Your task to perform on an android device: find which apps use the phone's location Image 0: 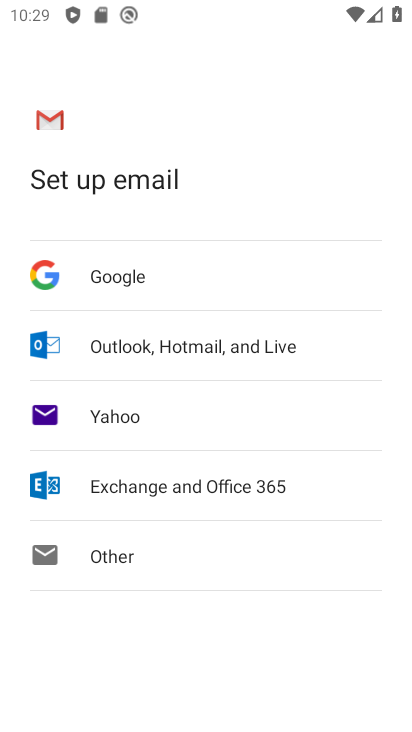
Step 0: press back button
Your task to perform on an android device: find which apps use the phone's location Image 1: 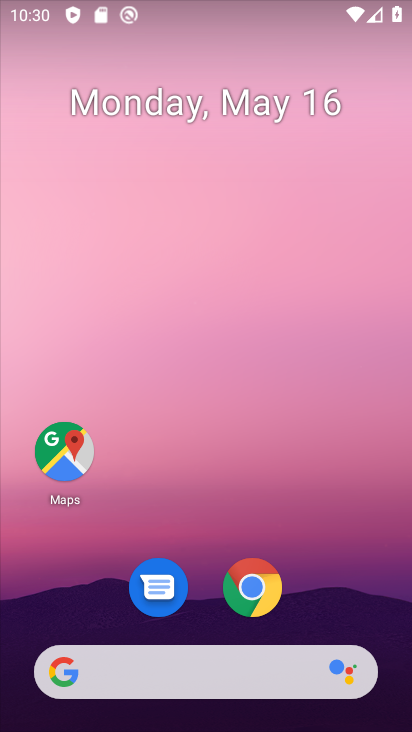
Step 1: drag from (351, 518) to (253, 37)
Your task to perform on an android device: find which apps use the phone's location Image 2: 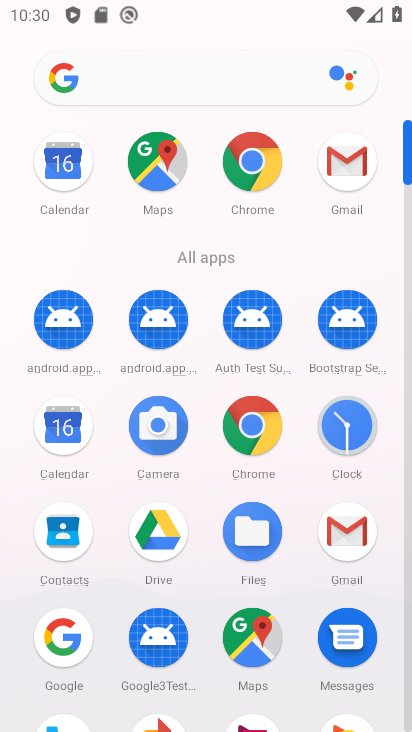
Step 2: drag from (21, 524) to (13, 215)
Your task to perform on an android device: find which apps use the phone's location Image 3: 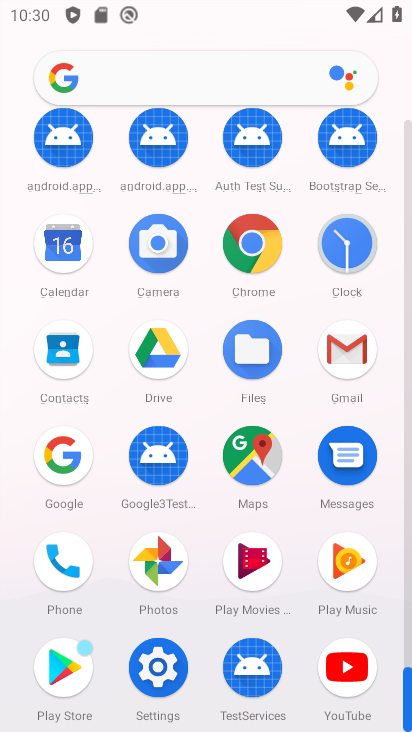
Step 3: click (156, 662)
Your task to perform on an android device: find which apps use the phone's location Image 4: 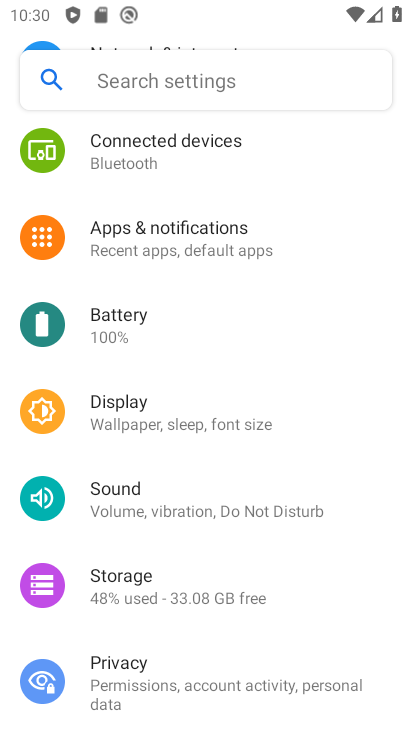
Step 4: drag from (292, 562) to (279, 145)
Your task to perform on an android device: find which apps use the phone's location Image 5: 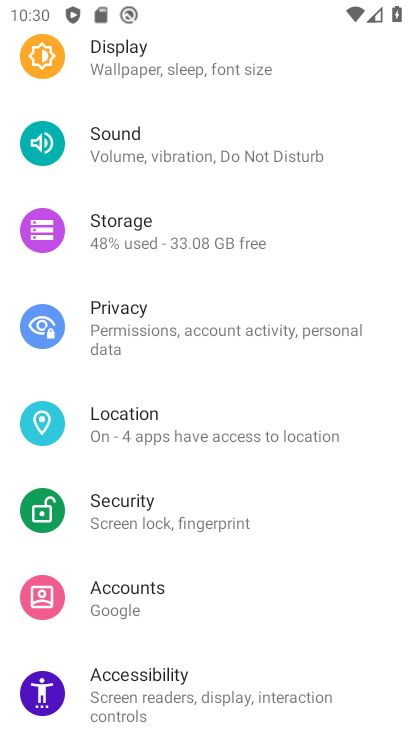
Step 5: drag from (280, 534) to (287, 114)
Your task to perform on an android device: find which apps use the phone's location Image 6: 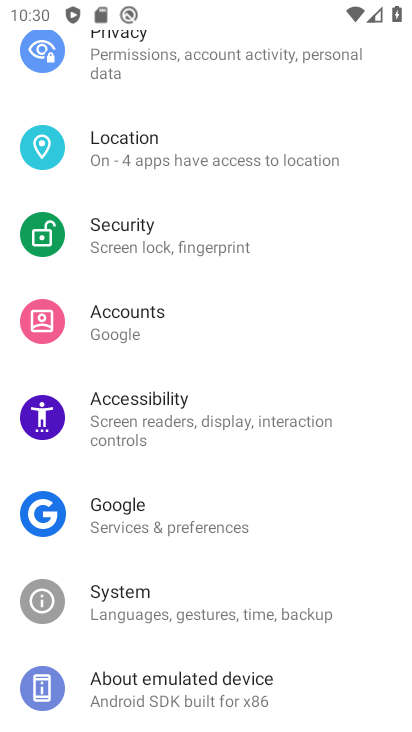
Step 6: drag from (217, 637) to (259, 238)
Your task to perform on an android device: find which apps use the phone's location Image 7: 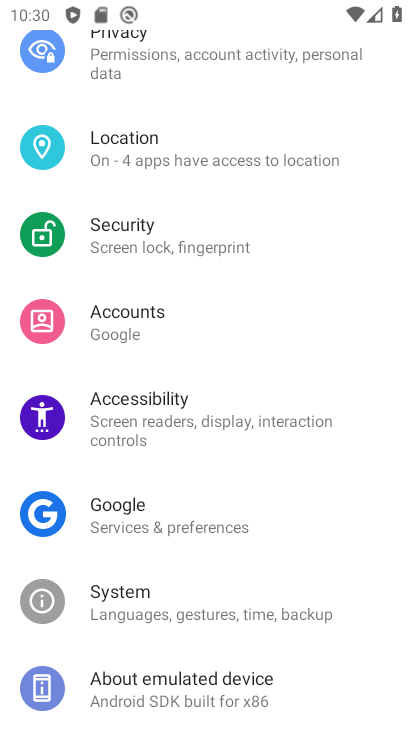
Step 7: drag from (262, 146) to (226, 617)
Your task to perform on an android device: find which apps use the phone's location Image 8: 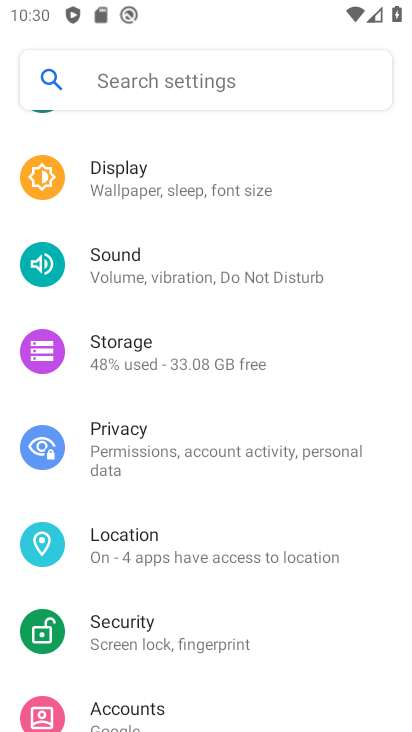
Step 8: drag from (276, 239) to (276, 601)
Your task to perform on an android device: find which apps use the phone's location Image 9: 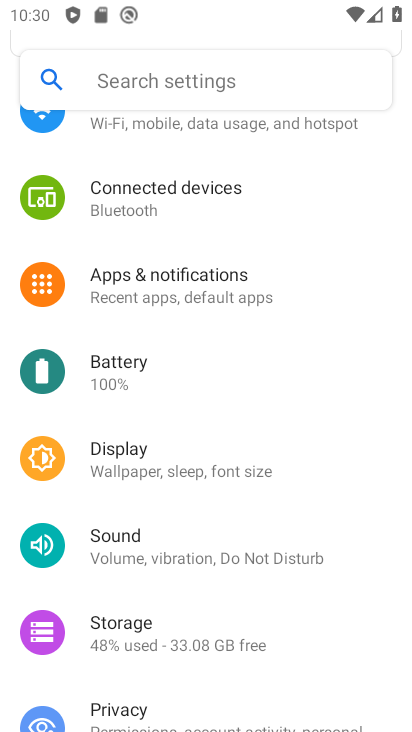
Step 9: drag from (289, 222) to (250, 576)
Your task to perform on an android device: find which apps use the phone's location Image 10: 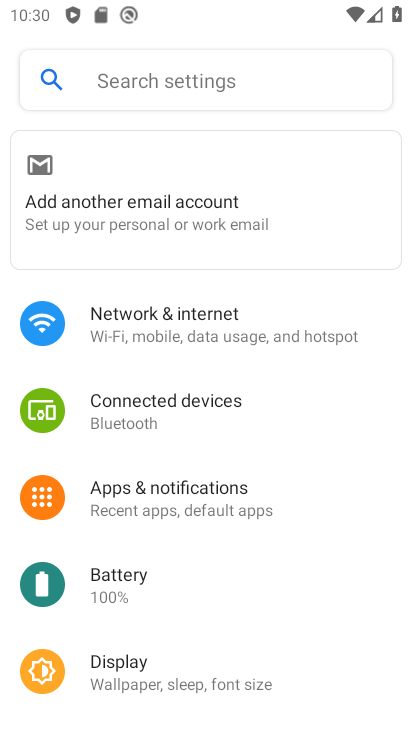
Step 10: drag from (292, 512) to (319, 201)
Your task to perform on an android device: find which apps use the phone's location Image 11: 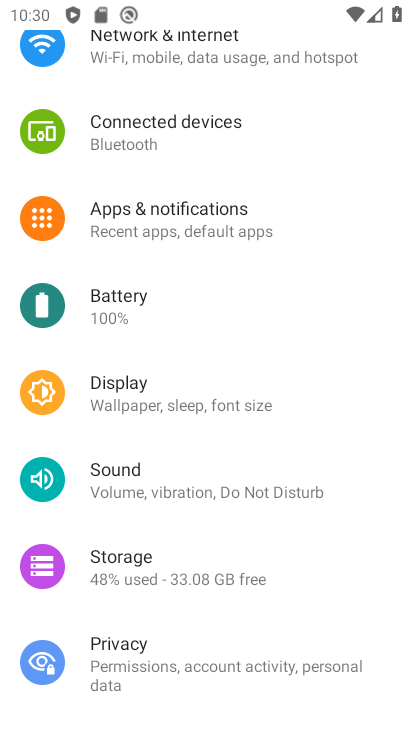
Step 11: drag from (309, 195) to (283, 444)
Your task to perform on an android device: find which apps use the phone's location Image 12: 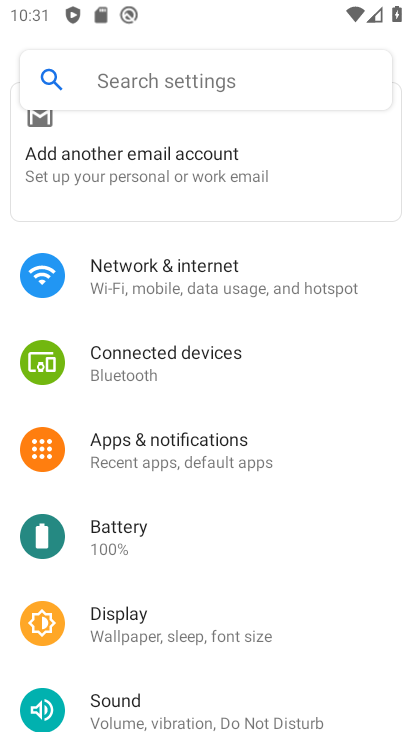
Step 12: drag from (260, 574) to (281, 180)
Your task to perform on an android device: find which apps use the phone's location Image 13: 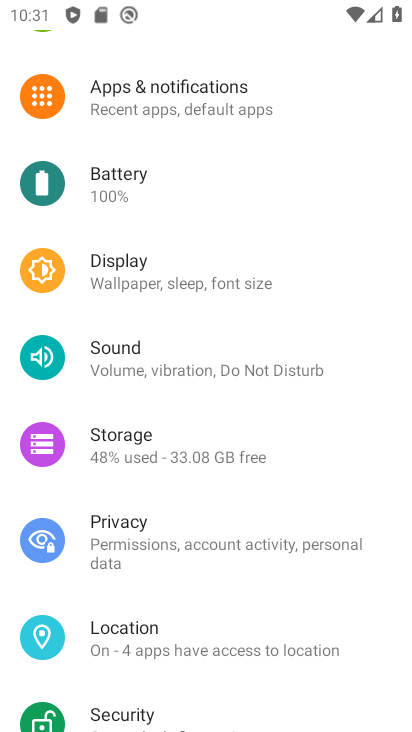
Step 13: drag from (298, 482) to (302, 205)
Your task to perform on an android device: find which apps use the phone's location Image 14: 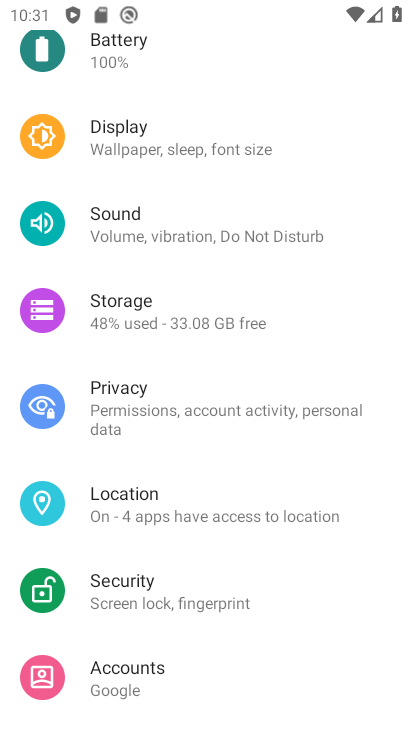
Step 14: drag from (275, 481) to (275, 116)
Your task to perform on an android device: find which apps use the phone's location Image 15: 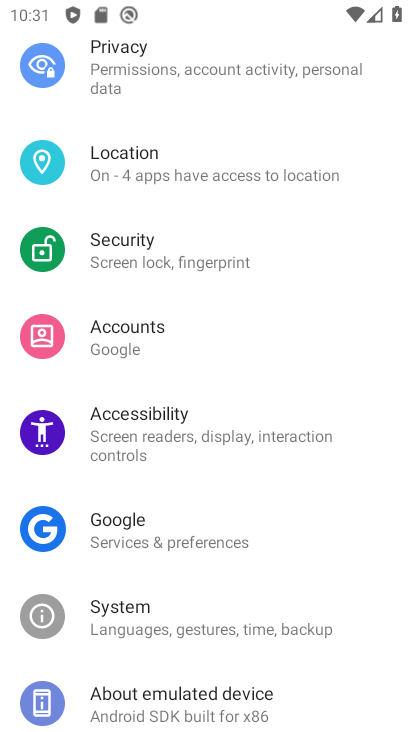
Step 15: drag from (308, 95) to (269, 506)
Your task to perform on an android device: find which apps use the phone's location Image 16: 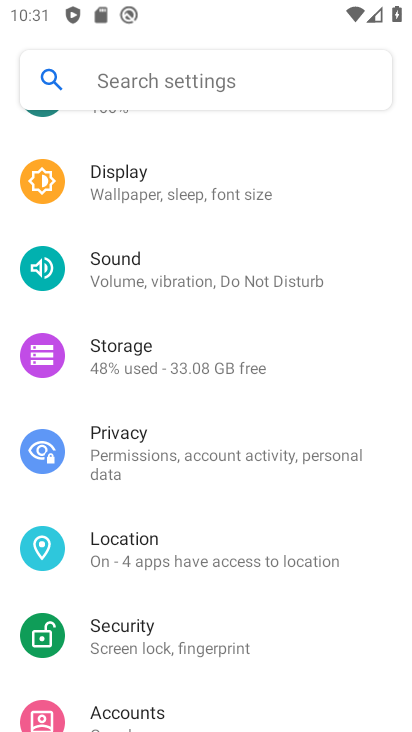
Step 16: click (166, 546)
Your task to perform on an android device: find which apps use the phone's location Image 17: 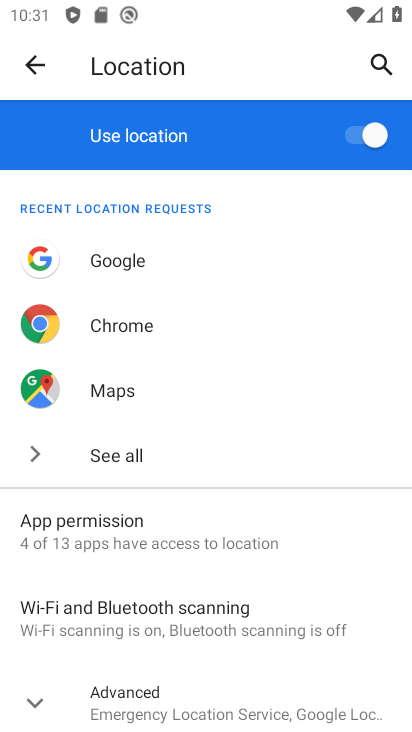
Step 17: click (40, 692)
Your task to perform on an android device: find which apps use the phone's location Image 18: 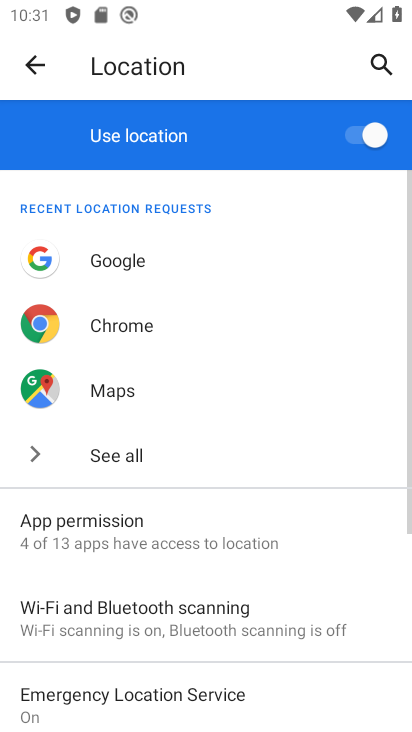
Step 18: click (172, 524)
Your task to perform on an android device: find which apps use the phone's location Image 19: 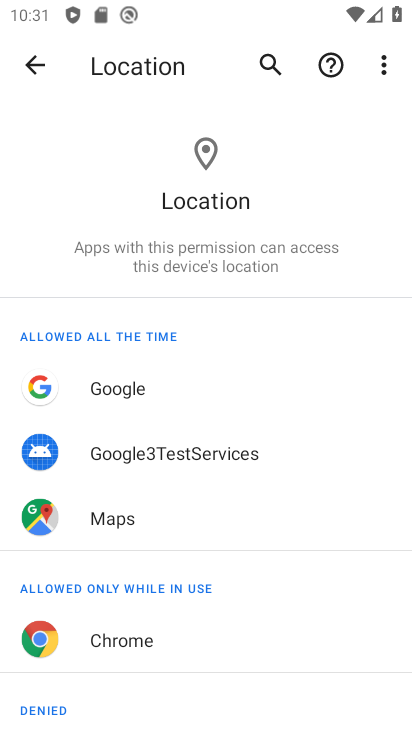
Step 19: task complete